Your task to perform on an android device: Open Google Chrome Image 0: 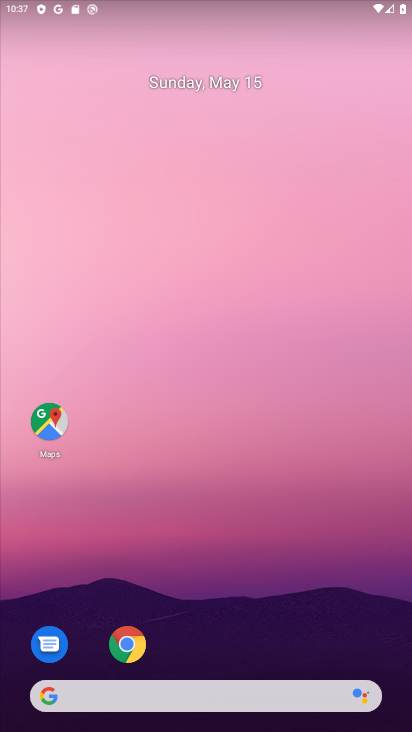
Step 0: drag from (225, 642) to (171, 181)
Your task to perform on an android device: Open Google Chrome Image 1: 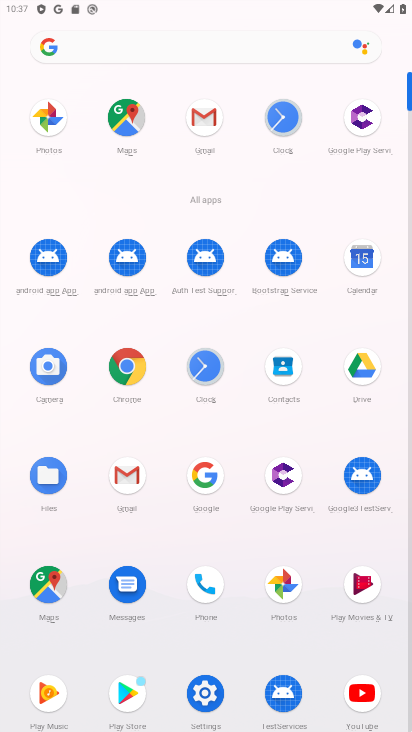
Step 1: click (130, 371)
Your task to perform on an android device: Open Google Chrome Image 2: 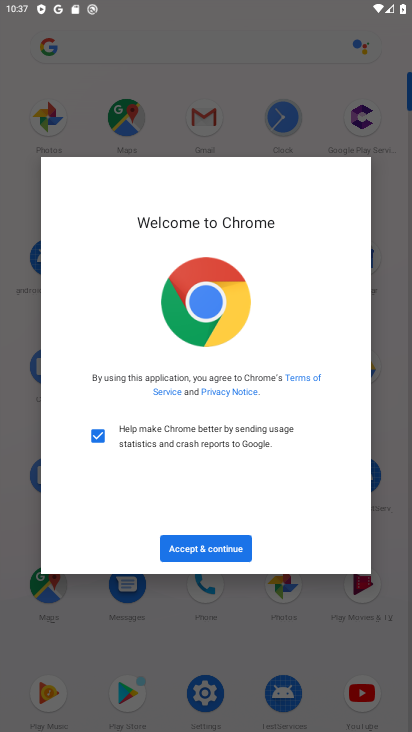
Step 2: click (213, 558)
Your task to perform on an android device: Open Google Chrome Image 3: 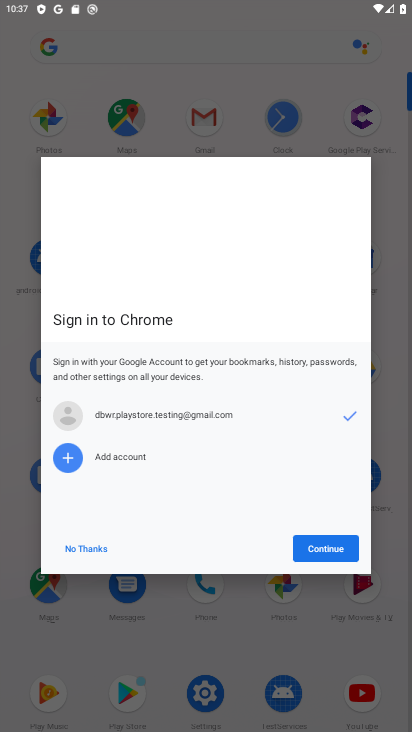
Step 3: click (304, 553)
Your task to perform on an android device: Open Google Chrome Image 4: 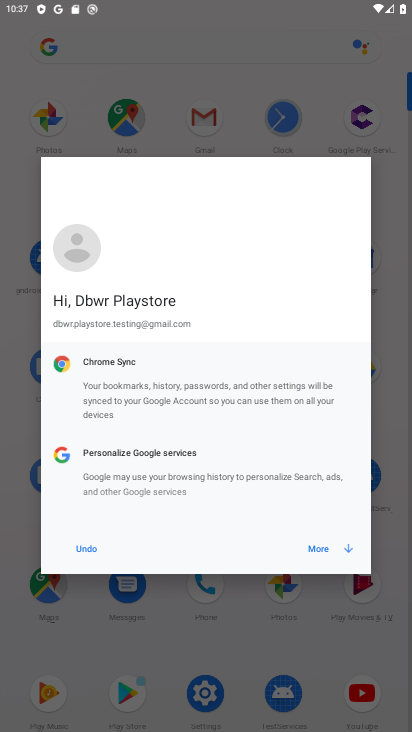
Step 4: click (304, 553)
Your task to perform on an android device: Open Google Chrome Image 5: 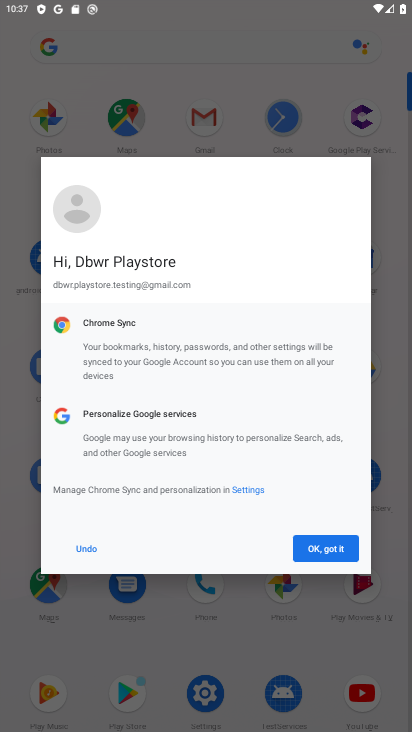
Step 5: click (304, 553)
Your task to perform on an android device: Open Google Chrome Image 6: 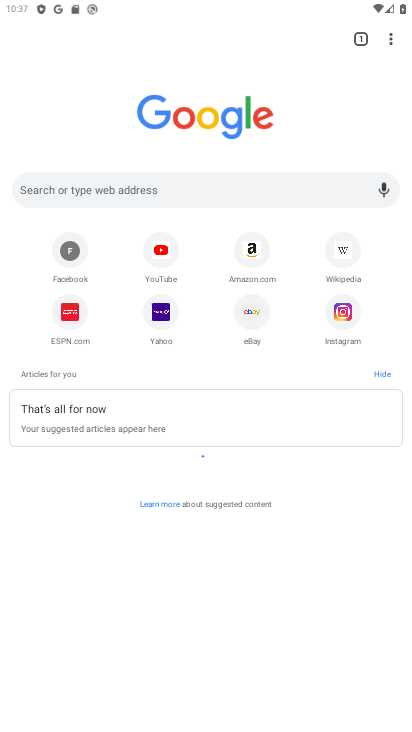
Step 6: task complete